Your task to perform on an android device: Open Youtube and go to the subscriptions tab Image 0: 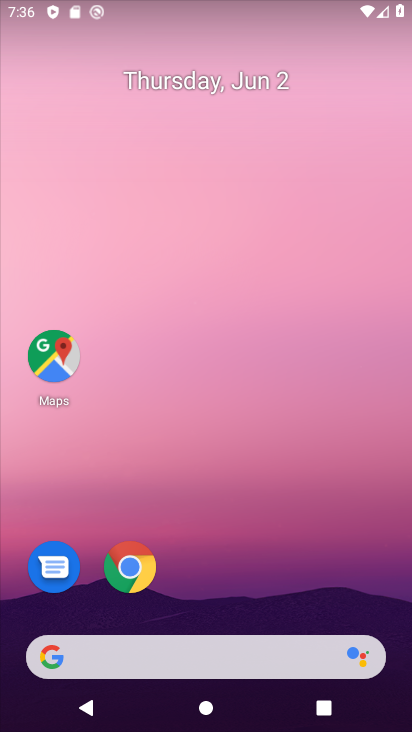
Step 0: drag from (391, 489) to (395, 95)
Your task to perform on an android device: Open Youtube and go to the subscriptions tab Image 1: 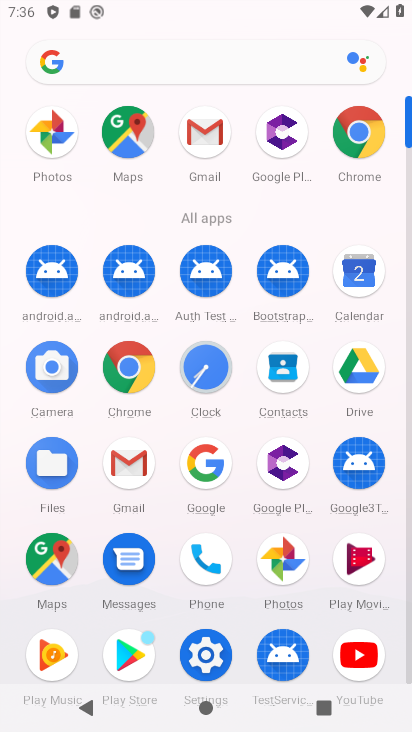
Step 1: click (366, 659)
Your task to perform on an android device: Open Youtube and go to the subscriptions tab Image 2: 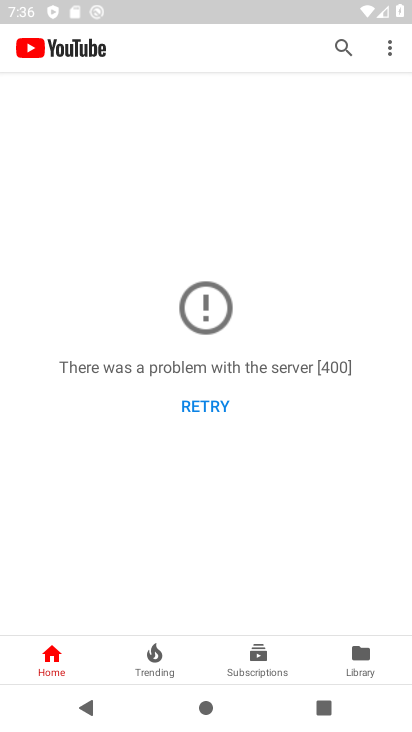
Step 2: click (251, 659)
Your task to perform on an android device: Open Youtube and go to the subscriptions tab Image 3: 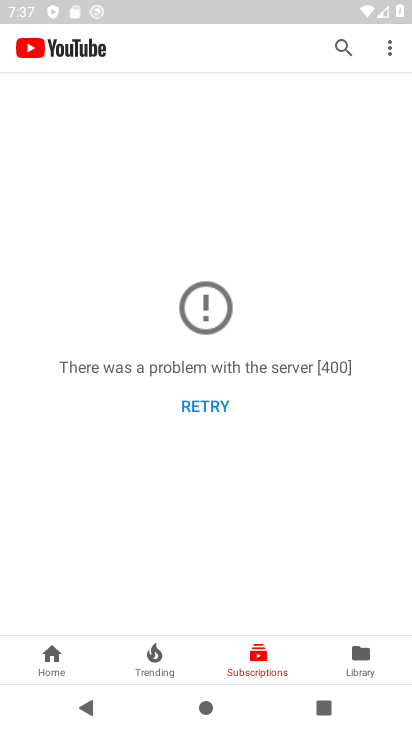
Step 3: task complete